Your task to perform on an android device: change the clock display to show seconds Image 0: 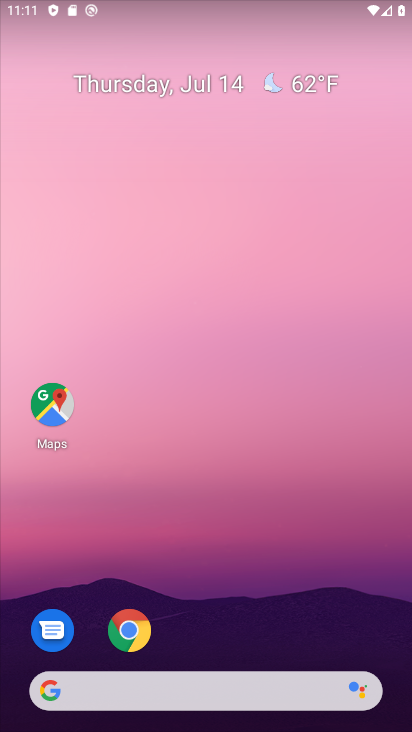
Step 0: drag from (179, 290) to (150, 98)
Your task to perform on an android device: change the clock display to show seconds Image 1: 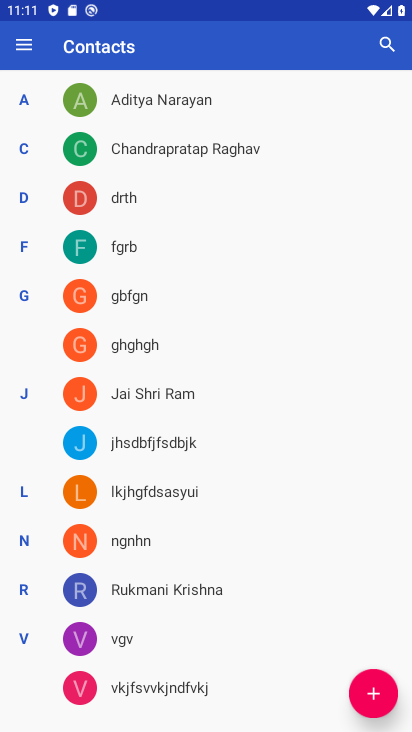
Step 1: press back button
Your task to perform on an android device: change the clock display to show seconds Image 2: 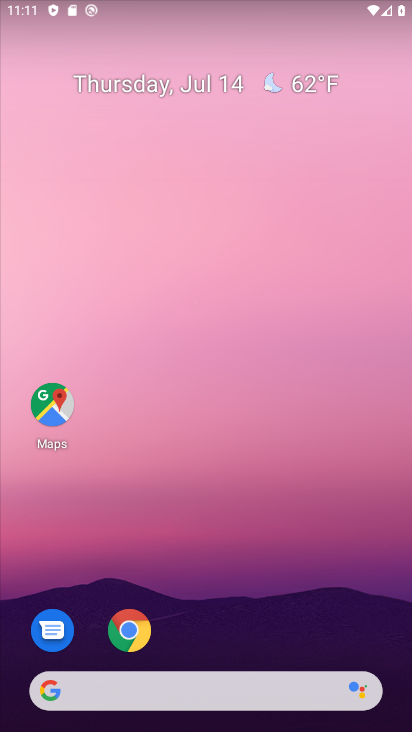
Step 2: drag from (282, 600) to (160, 7)
Your task to perform on an android device: change the clock display to show seconds Image 3: 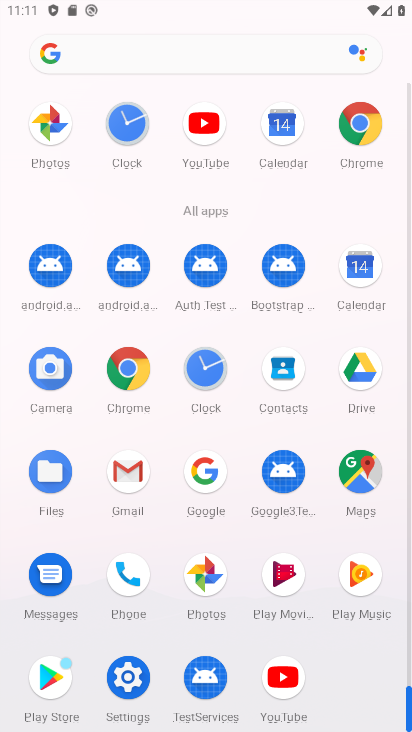
Step 3: click (203, 356)
Your task to perform on an android device: change the clock display to show seconds Image 4: 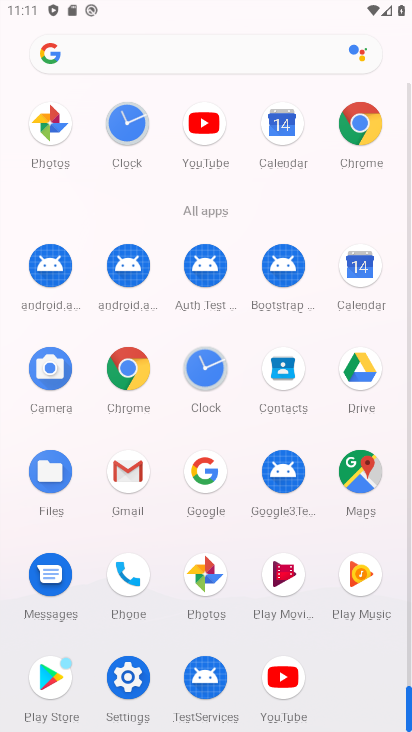
Step 4: click (203, 356)
Your task to perform on an android device: change the clock display to show seconds Image 5: 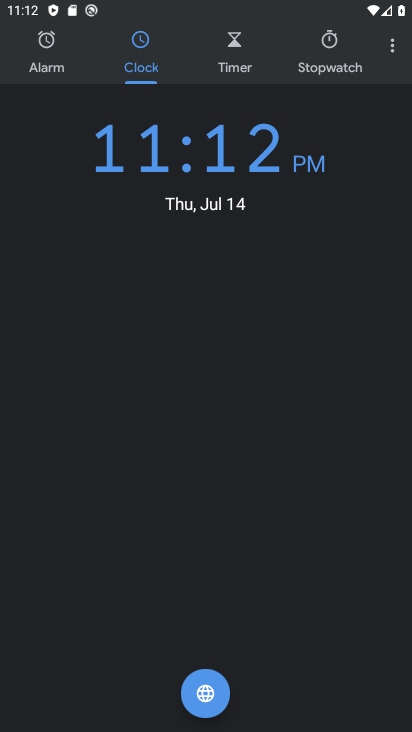
Step 5: click (392, 44)
Your task to perform on an android device: change the clock display to show seconds Image 6: 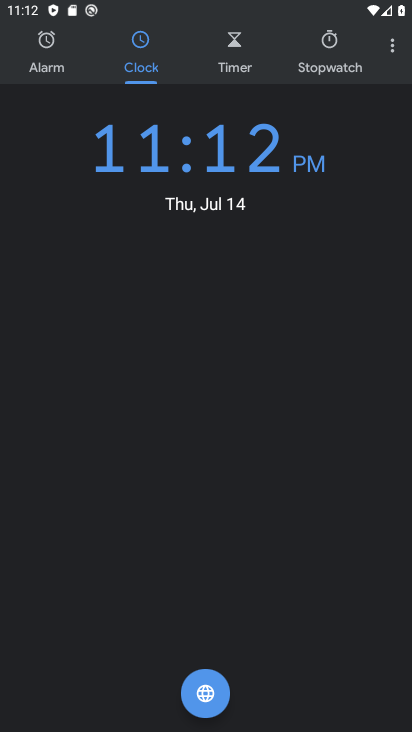
Step 6: drag from (387, 42) to (289, 89)
Your task to perform on an android device: change the clock display to show seconds Image 7: 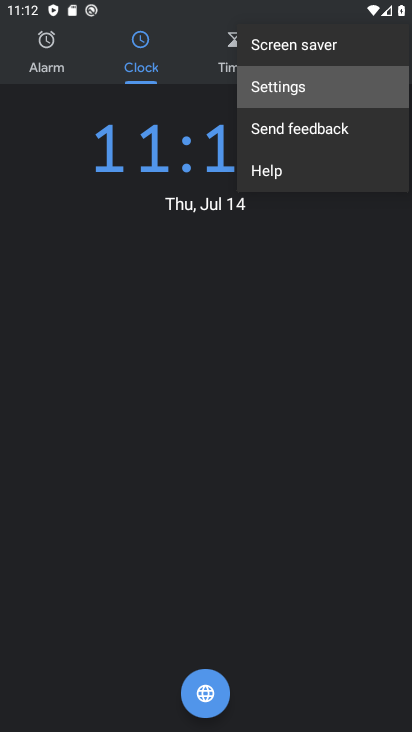
Step 7: click (288, 90)
Your task to perform on an android device: change the clock display to show seconds Image 8: 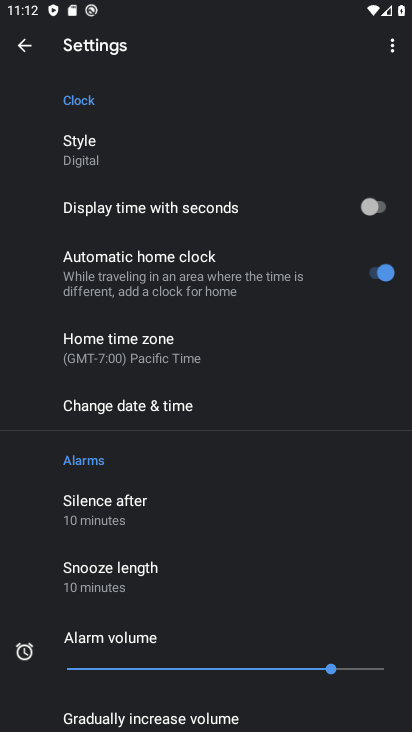
Step 8: click (94, 150)
Your task to perform on an android device: change the clock display to show seconds Image 9: 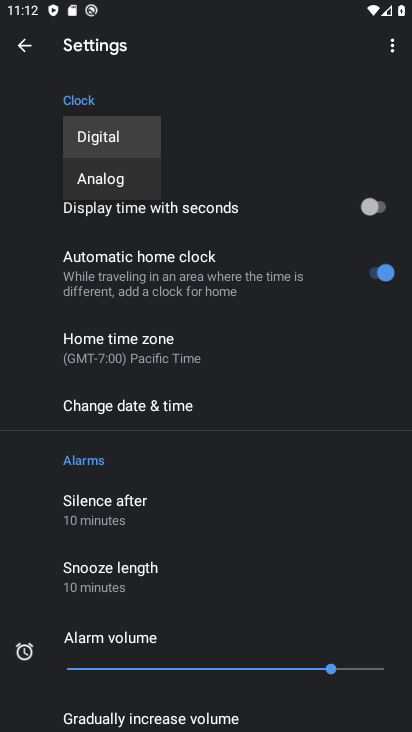
Step 9: click (238, 120)
Your task to perform on an android device: change the clock display to show seconds Image 10: 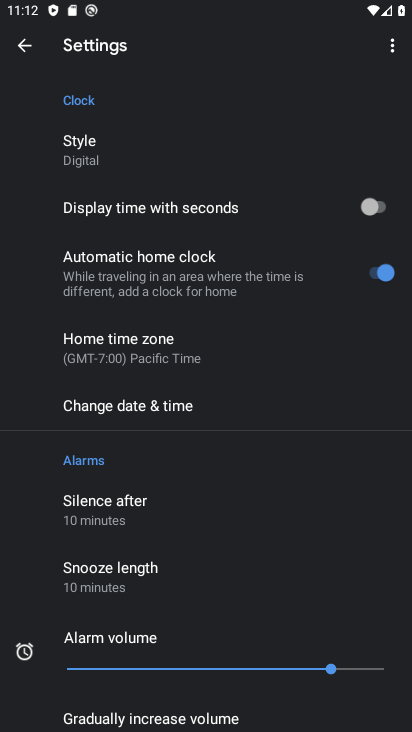
Step 10: click (366, 210)
Your task to perform on an android device: change the clock display to show seconds Image 11: 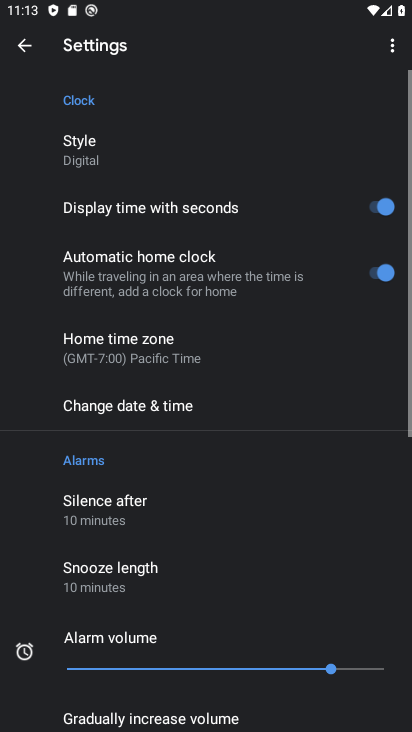
Step 11: task complete